Your task to perform on an android device: open app "Skype" (install if not already installed) Image 0: 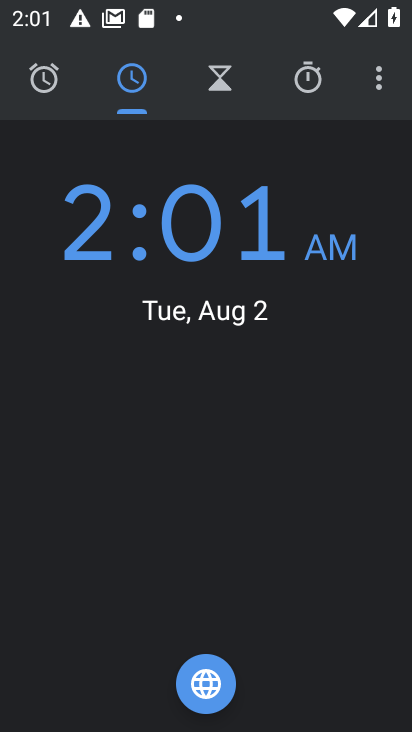
Step 0: press back button
Your task to perform on an android device: open app "Skype" (install if not already installed) Image 1: 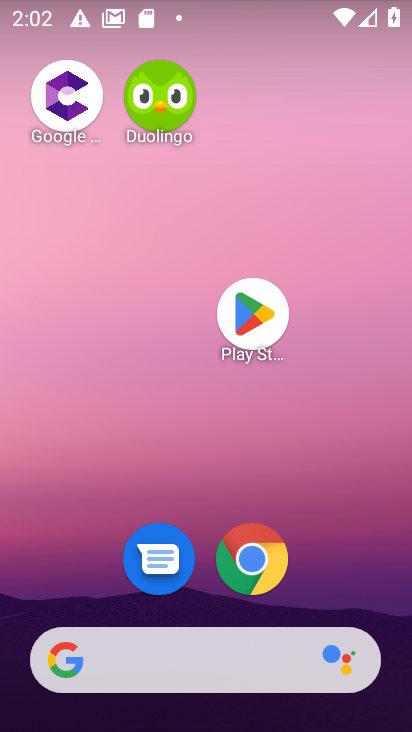
Step 1: click (261, 312)
Your task to perform on an android device: open app "Skype" (install if not already installed) Image 2: 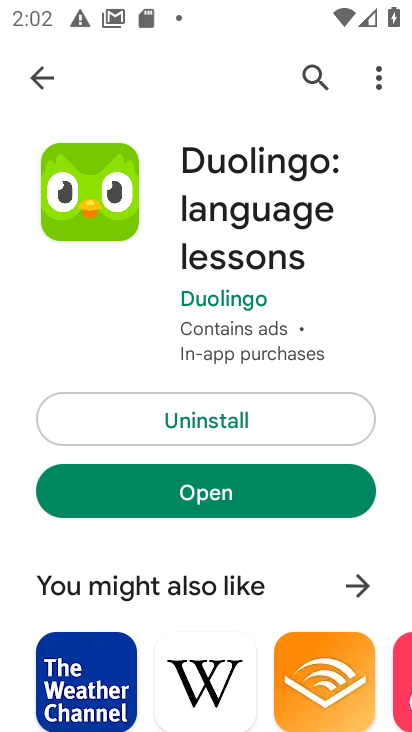
Step 2: click (313, 69)
Your task to perform on an android device: open app "Skype" (install if not already installed) Image 3: 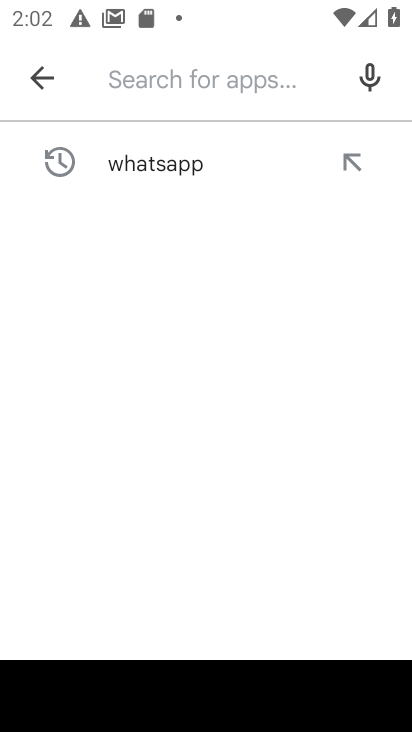
Step 3: click (213, 74)
Your task to perform on an android device: open app "Skype" (install if not already installed) Image 4: 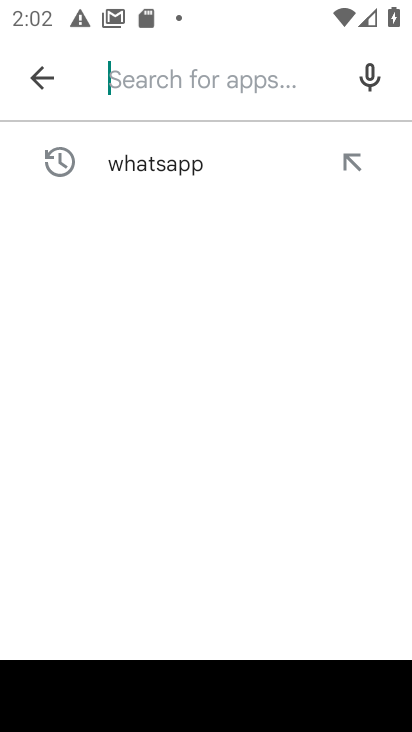
Step 4: type "skype"
Your task to perform on an android device: open app "Skype" (install if not already installed) Image 5: 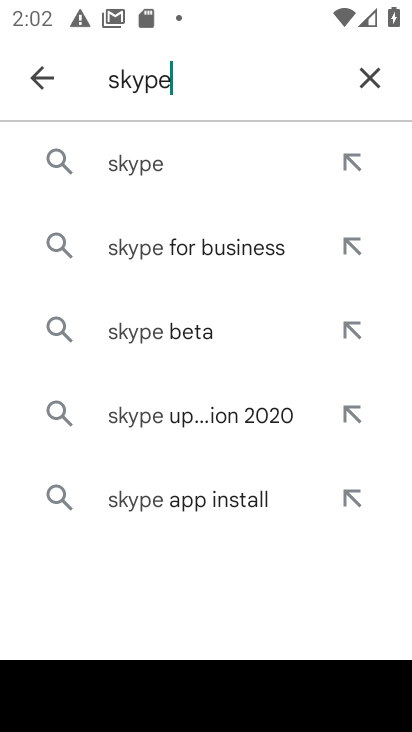
Step 5: click (117, 161)
Your task to perform on an android device: open app "Skype" (install if not already installed) Image 6: 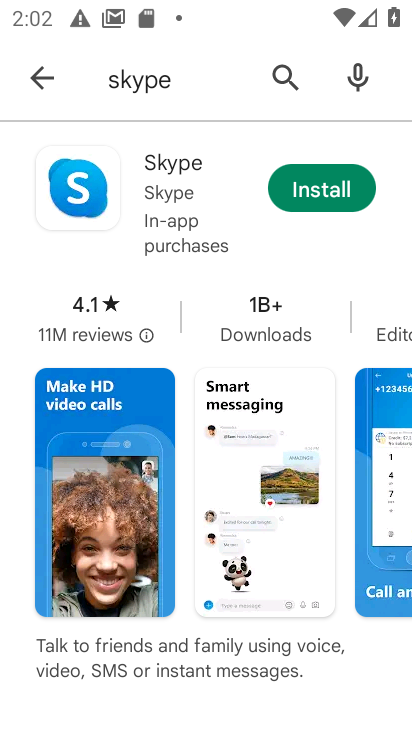
Step 6: click (349, 168)
Your task to perform on an android device: open app "Skype" (install if not already installed) Image 7: 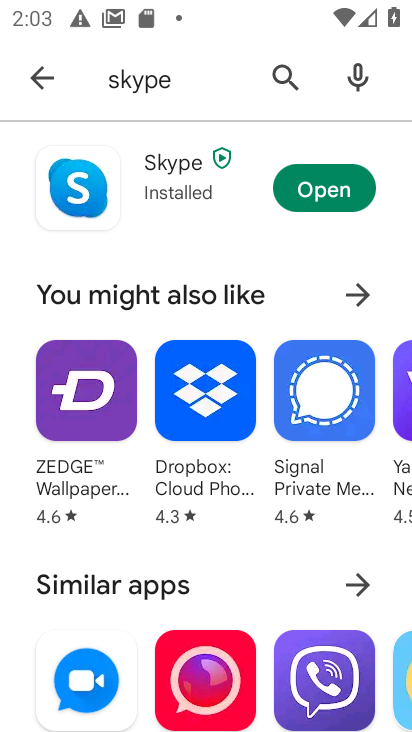
Step 7: task complete